Your task to perform on an android device: find which apps use the phone's location Image 0: 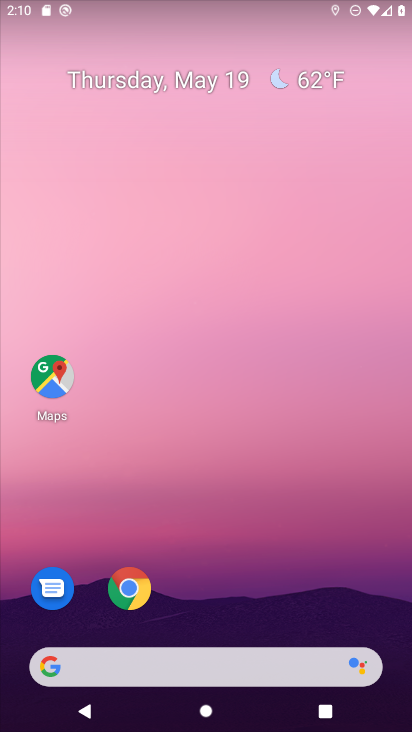
Step 0: drag from (338, 626) to (293, 0)
Your task to perform on an android device: find which apps use the phone's location Image 1: 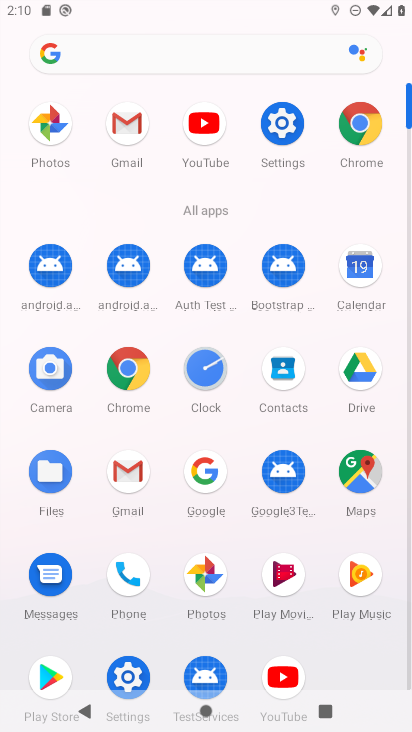
Step 1: click (275, 133)
Your task to perform on an android device: find which apps use the phone's location Image 2: 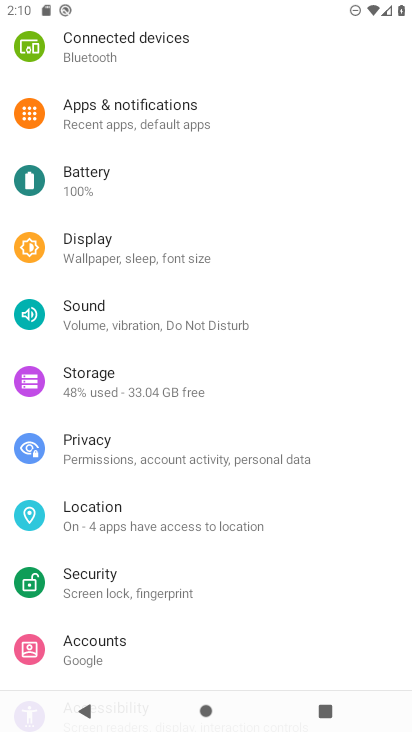
Step 2: click (91, 515)
Your task to perform on an android device: find which apps use the phone's location Image 3: 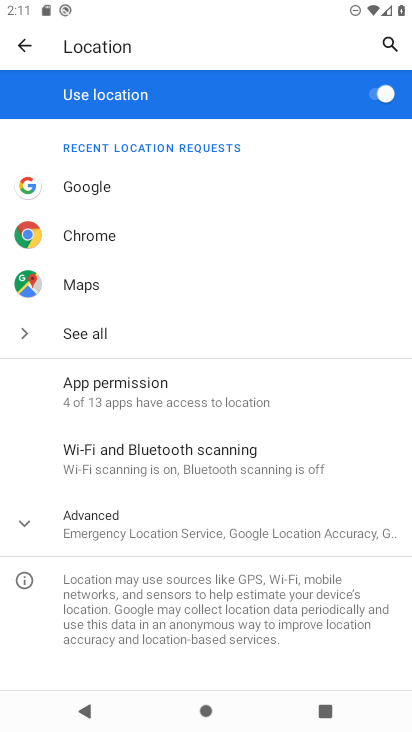
Step 3: click (88, 402)
Your task to perform on an android device: find which apps use the phone's location Image 4: 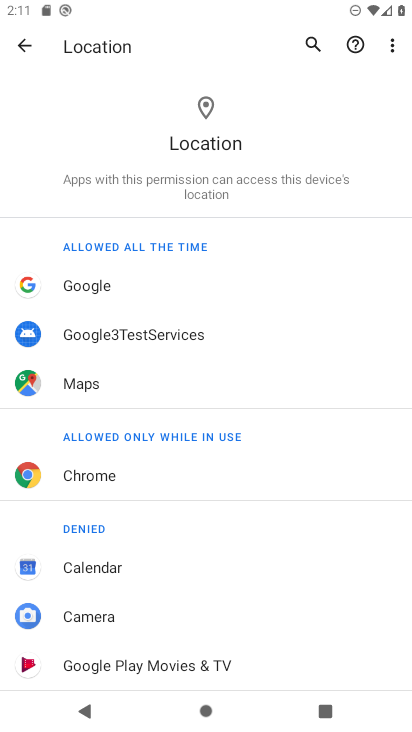
Step 4: task complete